Your task to perform on an android device: See recent photos Image 0: 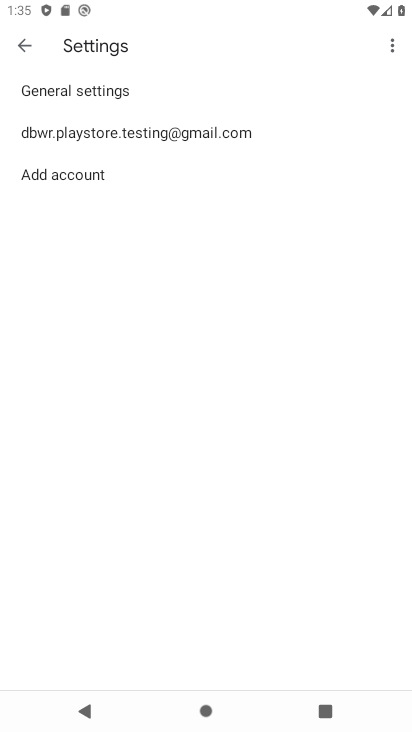
Step 0: press home button
Your task to perform on an android device: See recent photos Image 1: 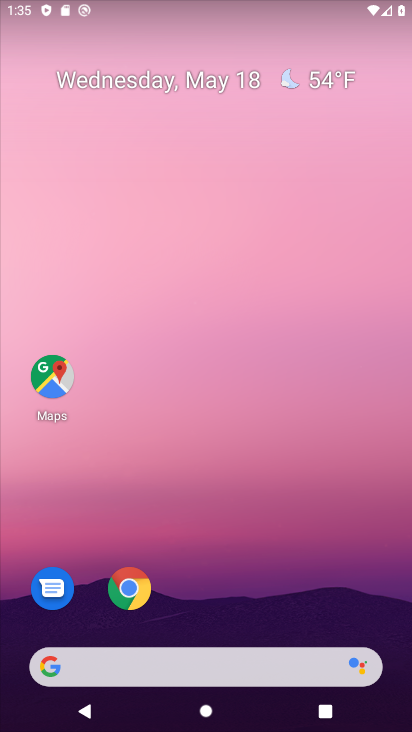
Step 1: drag from (149, 659) to (87, 75)
Your task to perform on an android device: See recent photos Image 2: 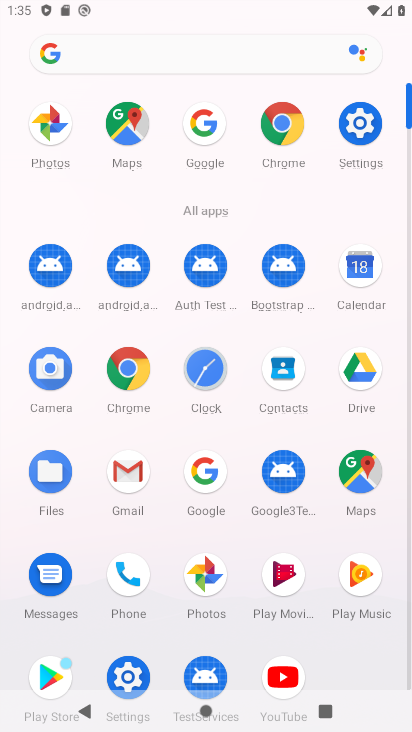
Step 2: click (209, 569)
Your task to perform on an android device: See recent photos Image 3: 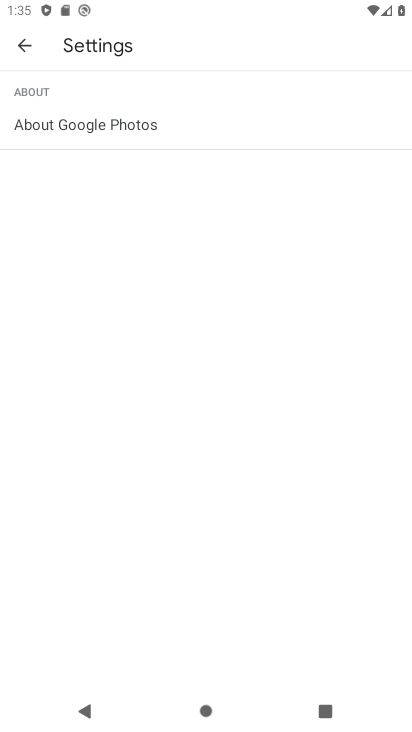
Step 3: click (29, 51)
Your task to perform on an android device: See recent photos Image 4: 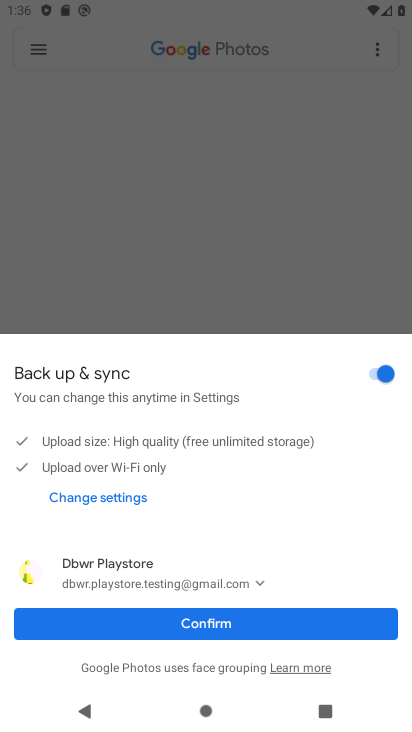
Step 4: click (201, 611)
Your task to perform on an android device: See recent photos Image 5: 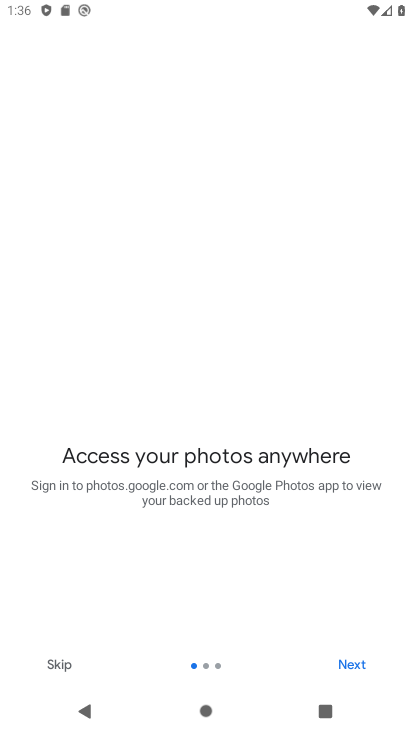
Step 5: click (70, 666)
Your task to perform on an android device: See recent photos Image 6: 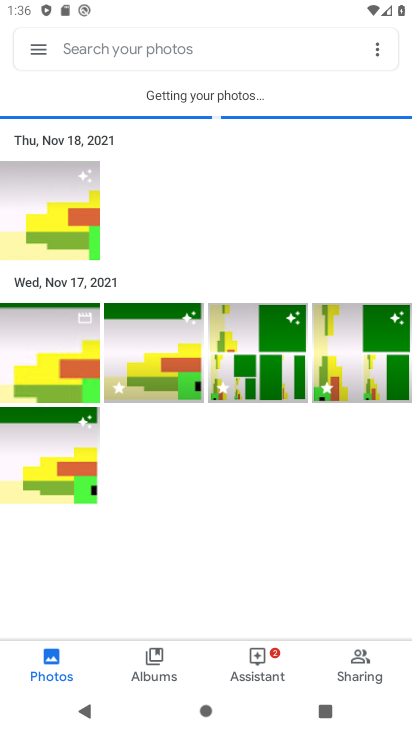
Step 6: task complete